Your task to perform on an android device: Open Android settings Image 0: 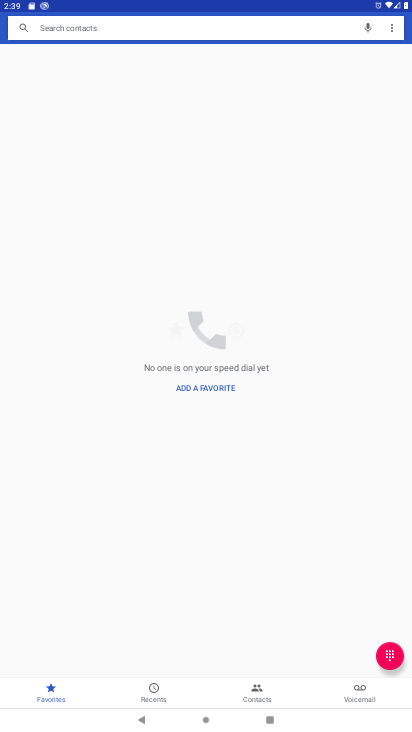
Step 0: press home button
Your task to perform on an android device: Open Android settings Image 1: 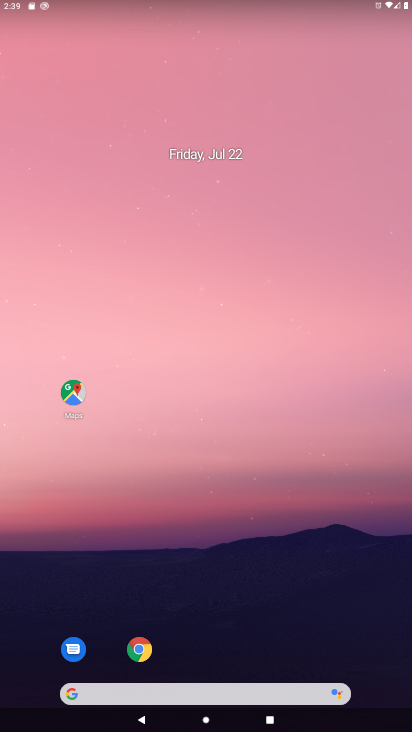
Step 1: drag from (231, 660) to (231, 155)
Your task to perform on an android device: Open Android settings Image 2: 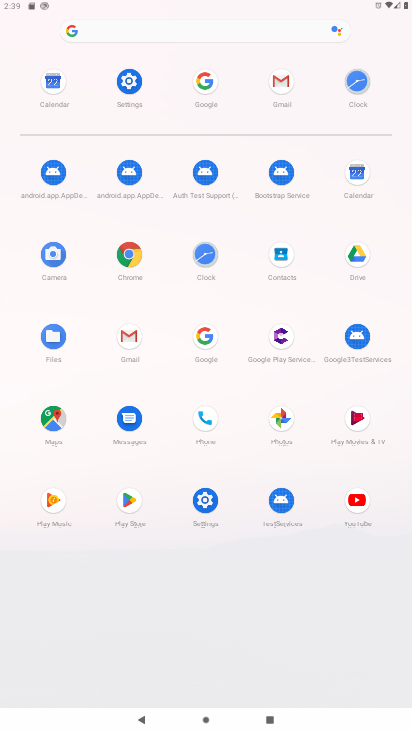
Step 2: click (132, 81)
Your task to perform on an android device: Open Android settings Image 3: 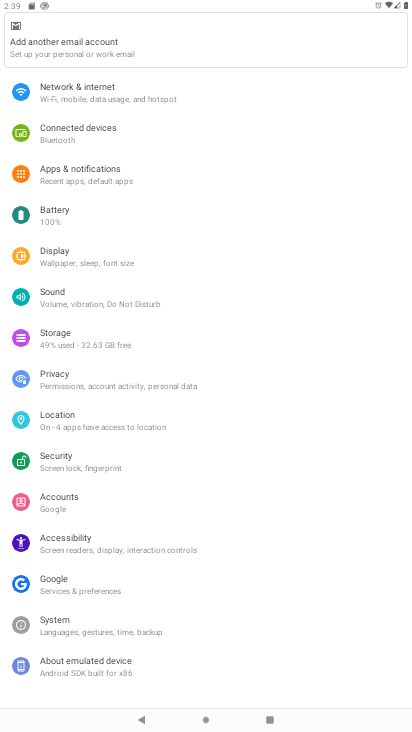
Step 3: task complete